Your task to perform on an android device: Go to internet settings Image 0: 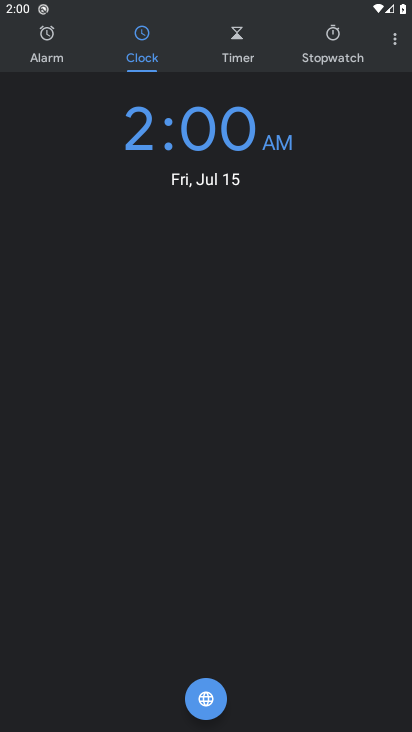
Step 0: press home button
Your task to perform on an android device: Go to internet settings Image 1: 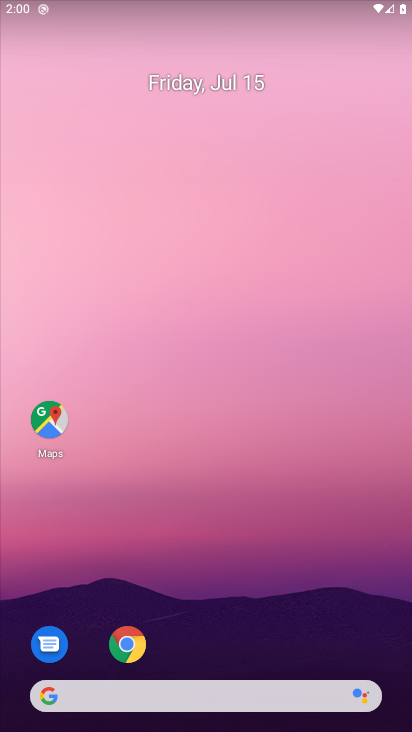
Step 1: drag from (26, 711) to (216, 178)
Your task to perform on an android device: Go to internet settings Image 2: 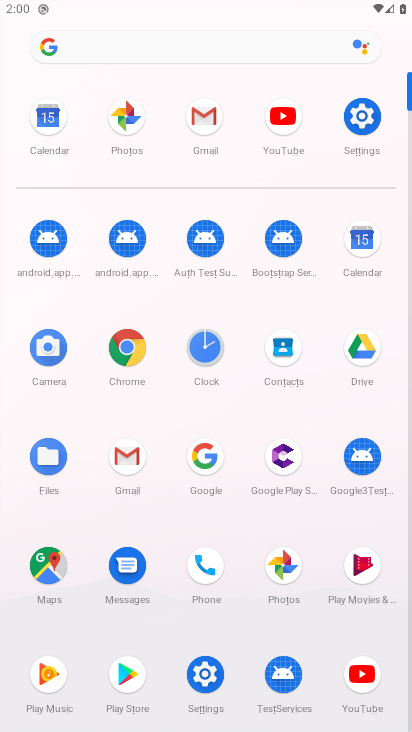
Step 2: click (219, 680)
Your task to perform on an android device: Go to internet settings Image 3: 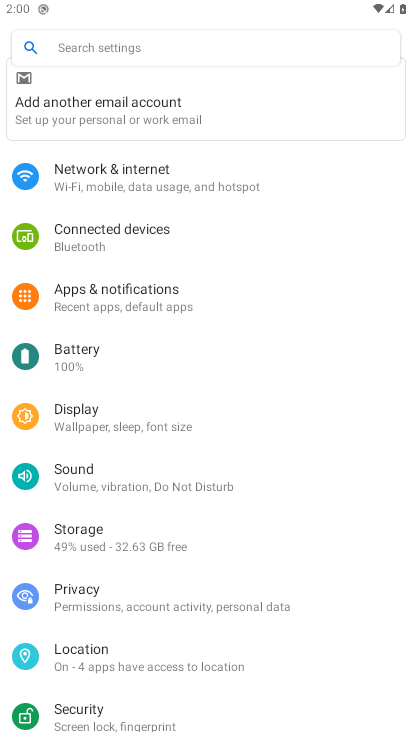
Step 3: click (130, 171)
Your task to perform on an android device: Go to internet settings Image 4: 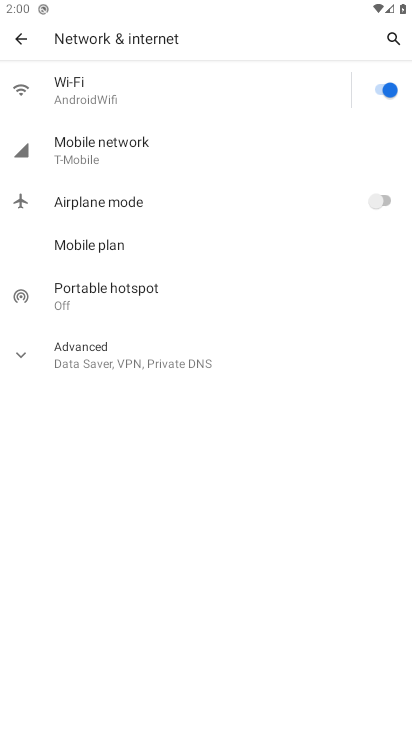
Step 4: task complete